Your task to perform on an android device: toggle airplane mode Image 0: 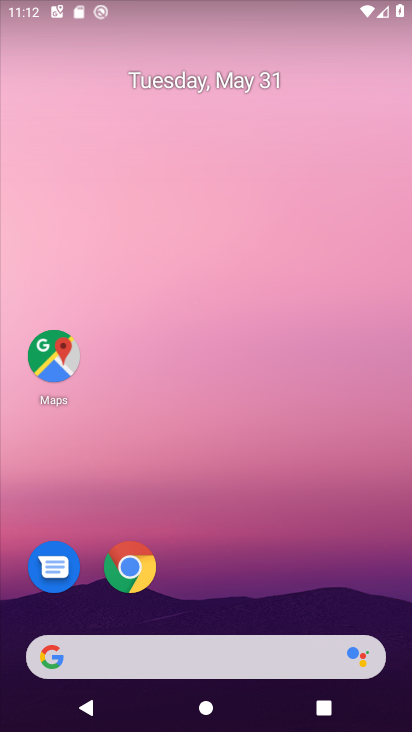
Step 0: drag from (170, 4) to (218, 607)
Your task to perform on an android device: toggle airplane mode Image 1: 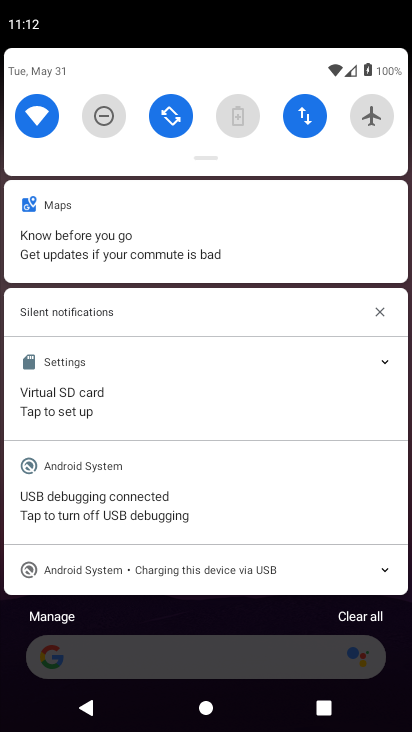
Step 1: click (374, 133)
Your task to perform on an android device: toggle airplane mode Image 2: 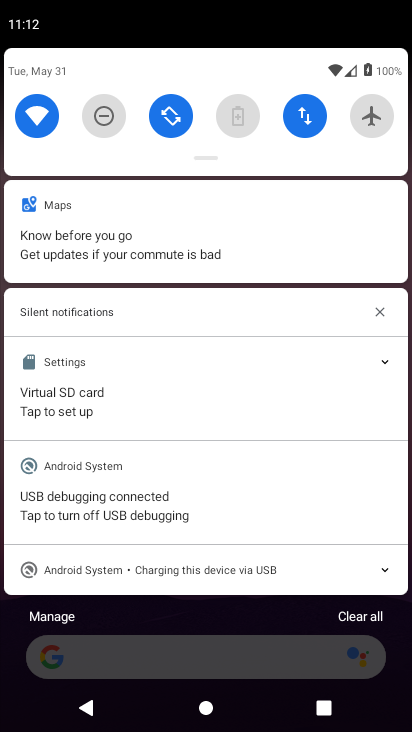
Step 2: click (374, 133)
Your task to perform on an android device: toggle airplane mode Image 3: 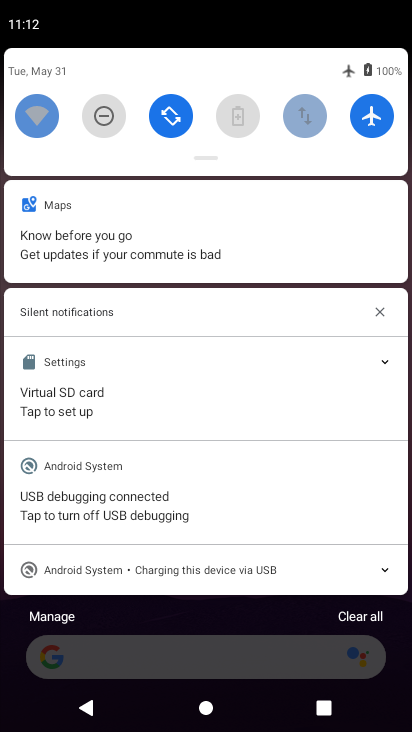
Step 3: click (374, 133)
Your task to perform on an android device: toggle airplane mode Image 4: 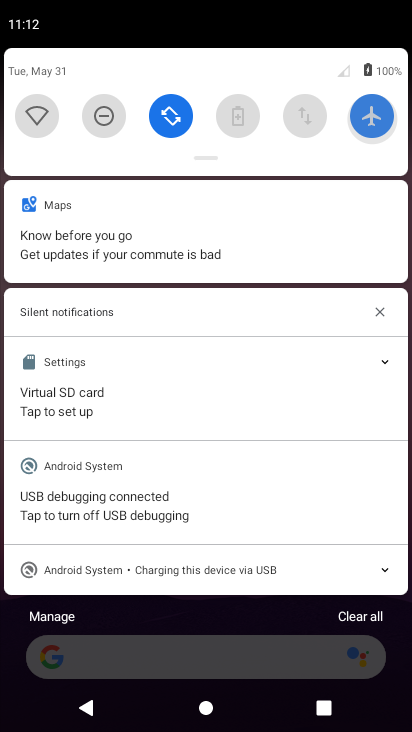
Step 4: click (374, 133)
Your task to perform on an android device: toggle airplane mode Image 5: 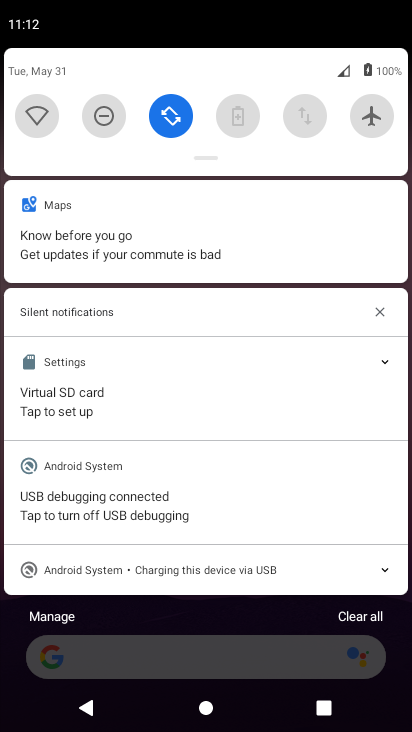
Step 5: click (374, 133)
Your task to perform on an android device: toggle airplane mode Image 6: 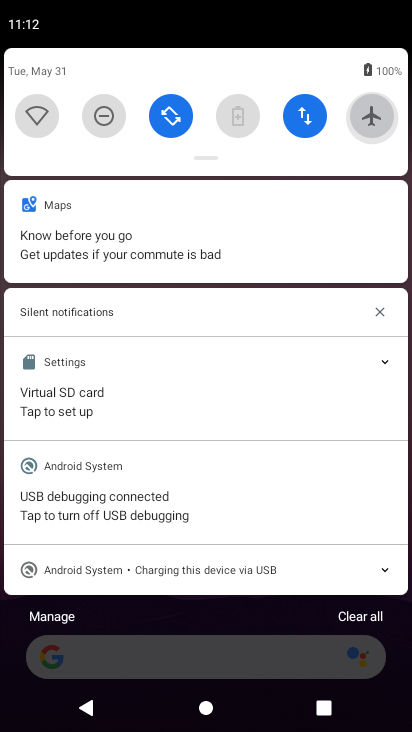
Step 6: click (374, 133)
Your task to perform on an android device: toggle airplane mode Image 7: 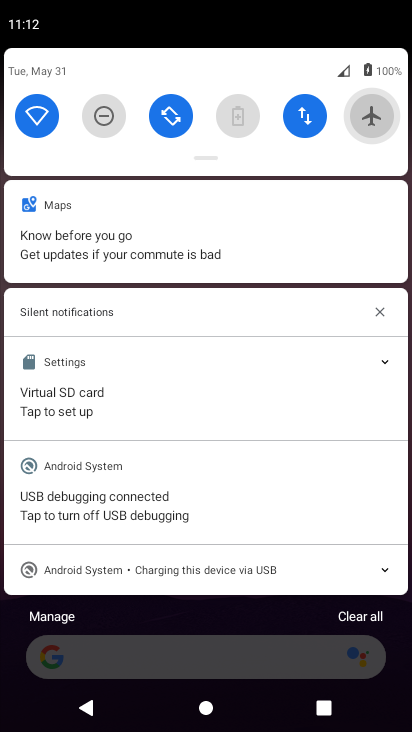
Step 7: click (374, 133)
Your task to perform on an android device: toggle airplane mode Image 8: 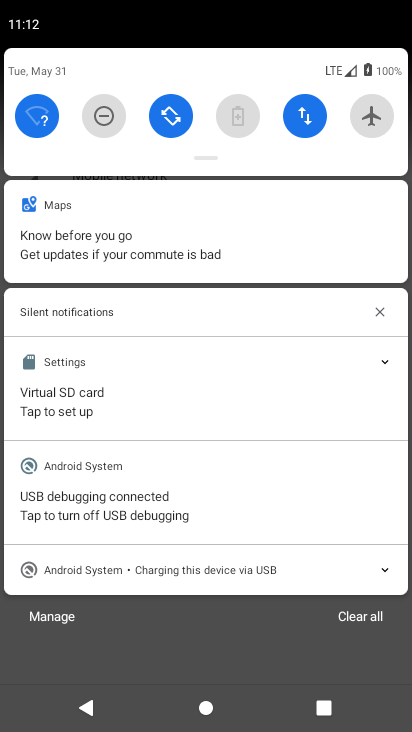
Step 8: task complete